Your task to perform on an android device: Search for the best deal on a 3d printer on aliexpress Image 0: 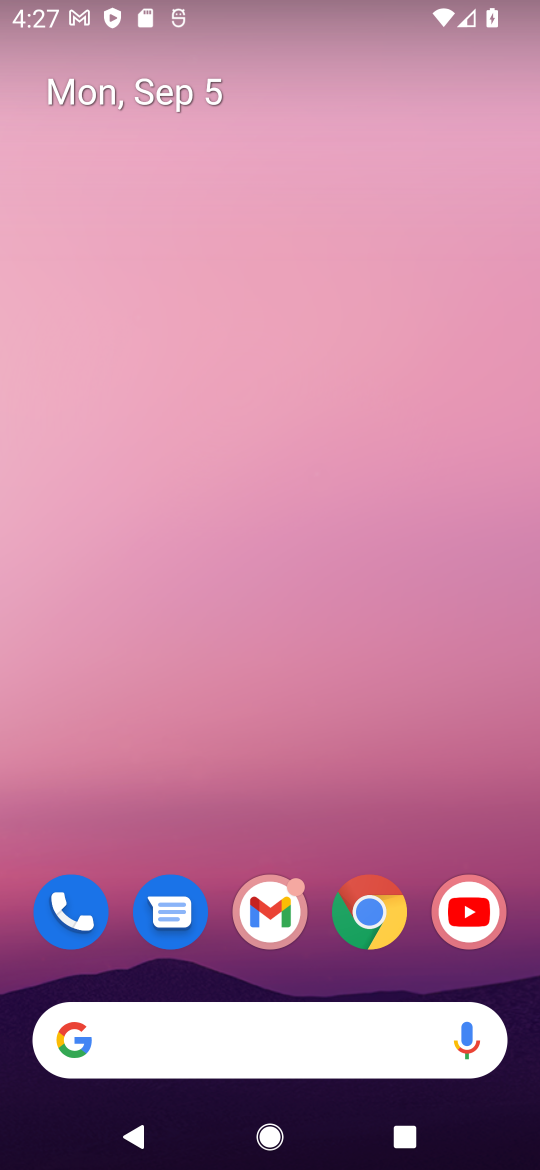
Step 0: click (381, 928)
Your task to perform on an android device: Search for the best deal on a 3d printer on aliexpress Image 1: 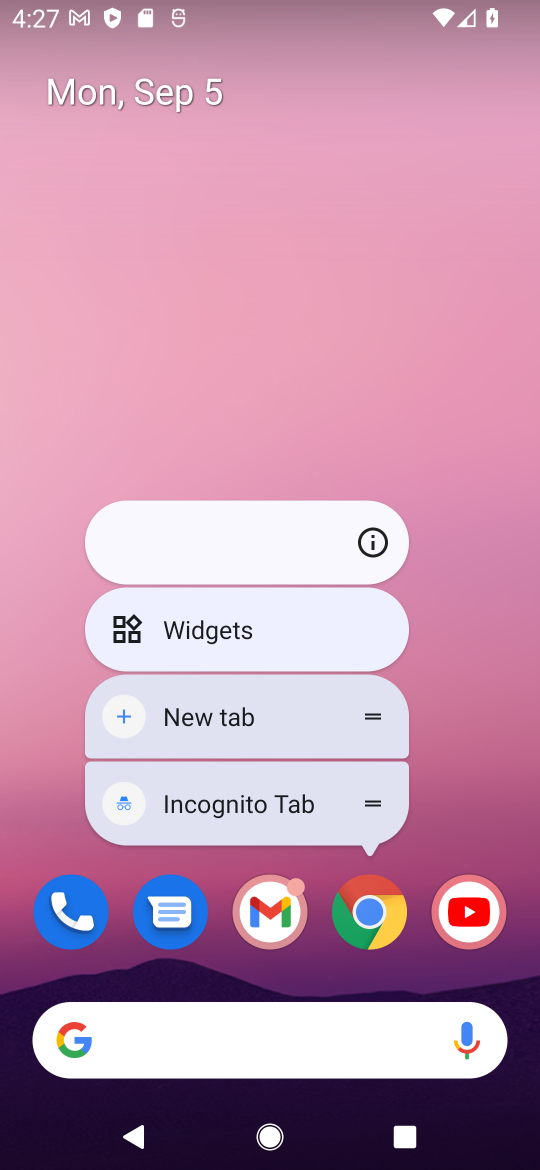
Step 1: click (382, 916)
Your task to perform on an android device: Search for the best deal on a 3d printer on aliexpress Image 2: 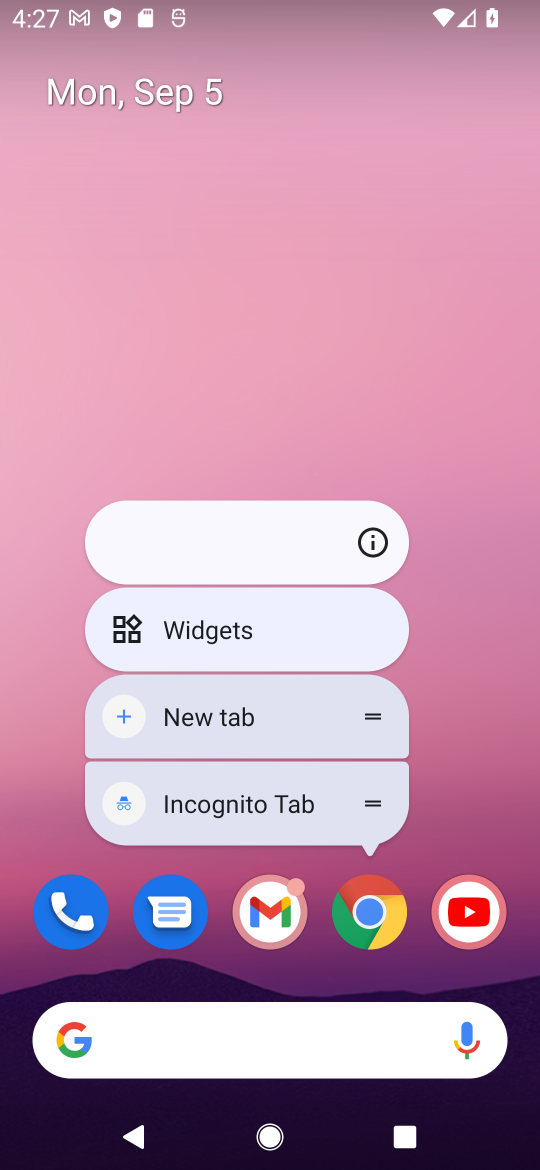
Step 2: click (358, 929)
Your task to perform on an android device: Search for the best deal on a 3d printer on aliexpress Image 3: 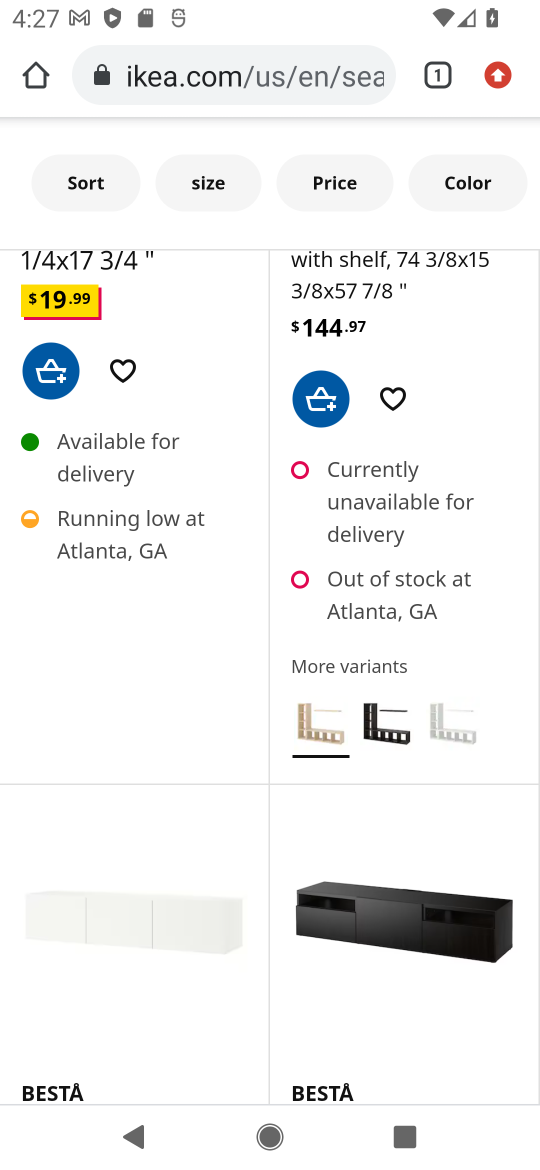
Step 3: click (215, 55)
Your task to perform on an android device: Search for the best deal on a 3d printer on aliexpress Image 4: 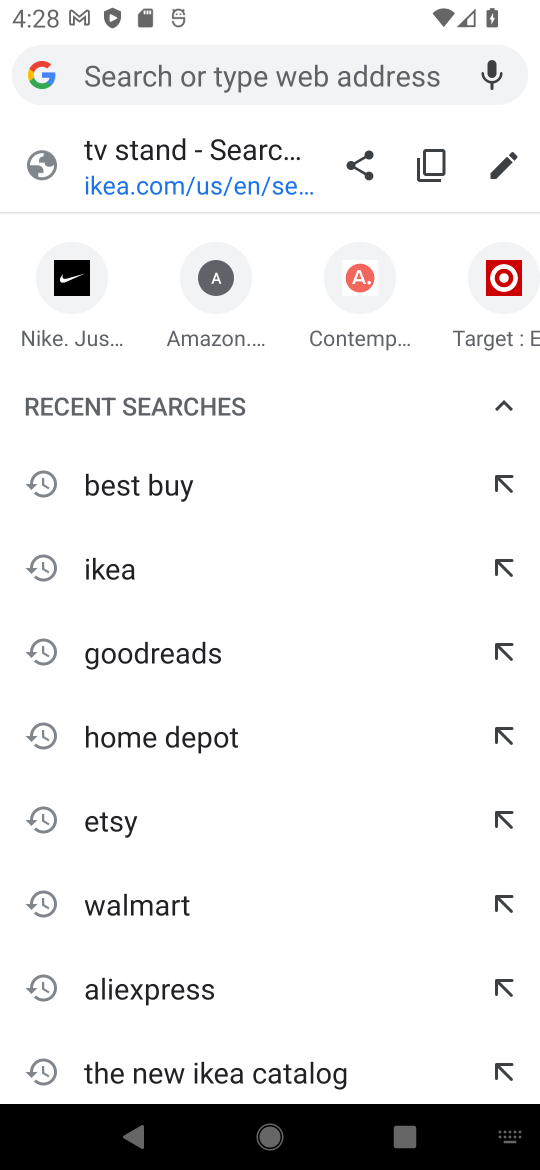
Step 4: type "aliexpress"
Your task to perform on an android device: Search for the best deal on a 3d printer on aliexpress Image 5: 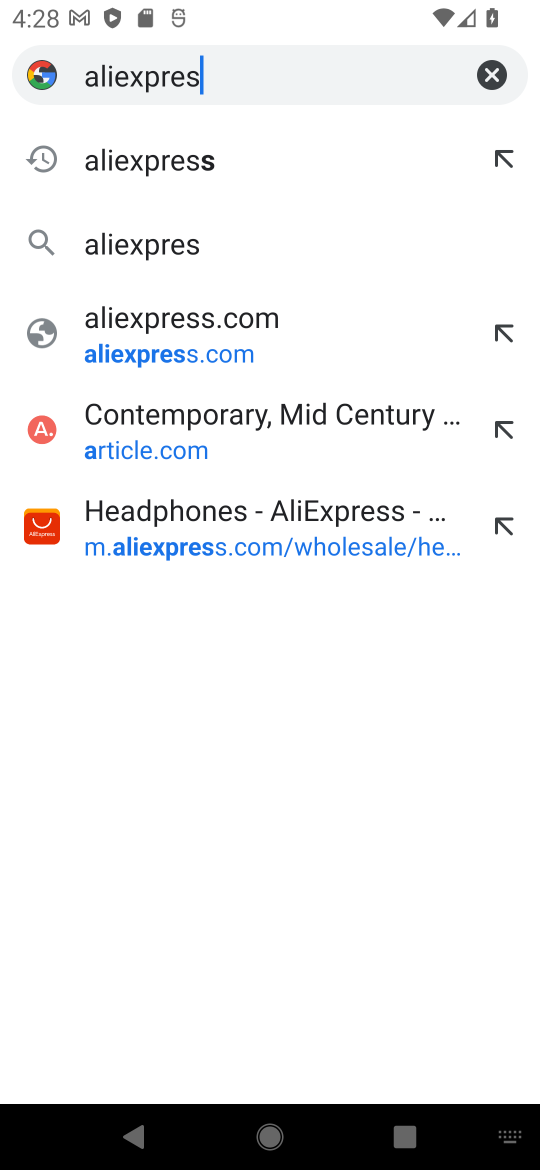
Step 5: type ""
Your task to perform on an android device: Search for the best deal on a 3d printer on aliexpress Image 6: 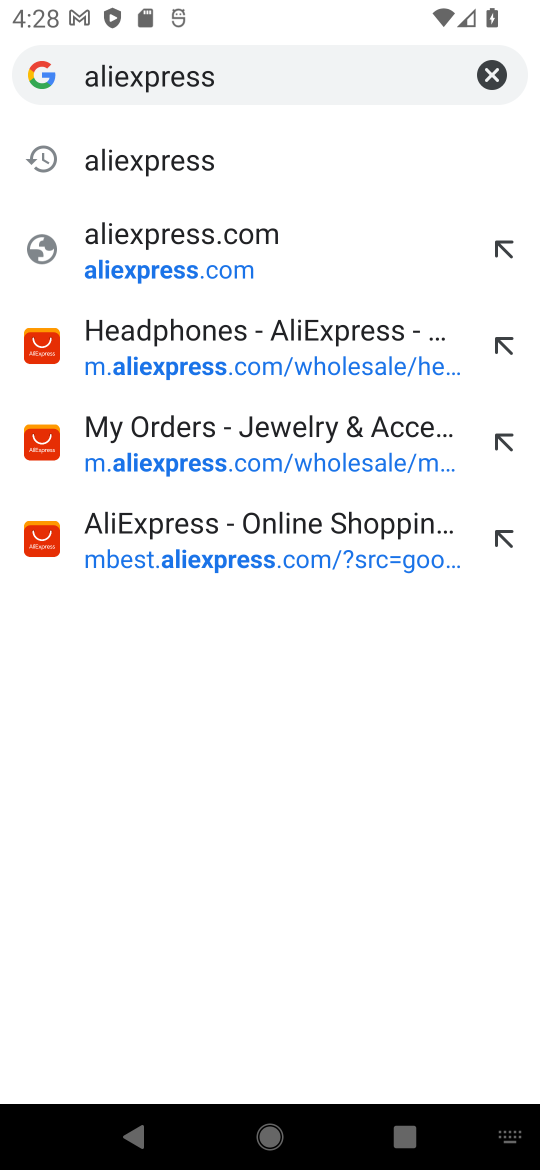
Step 6: press enter
Your task to perform on an android device: Search for the best deal on a 3d printer on aliexpress Image 7: 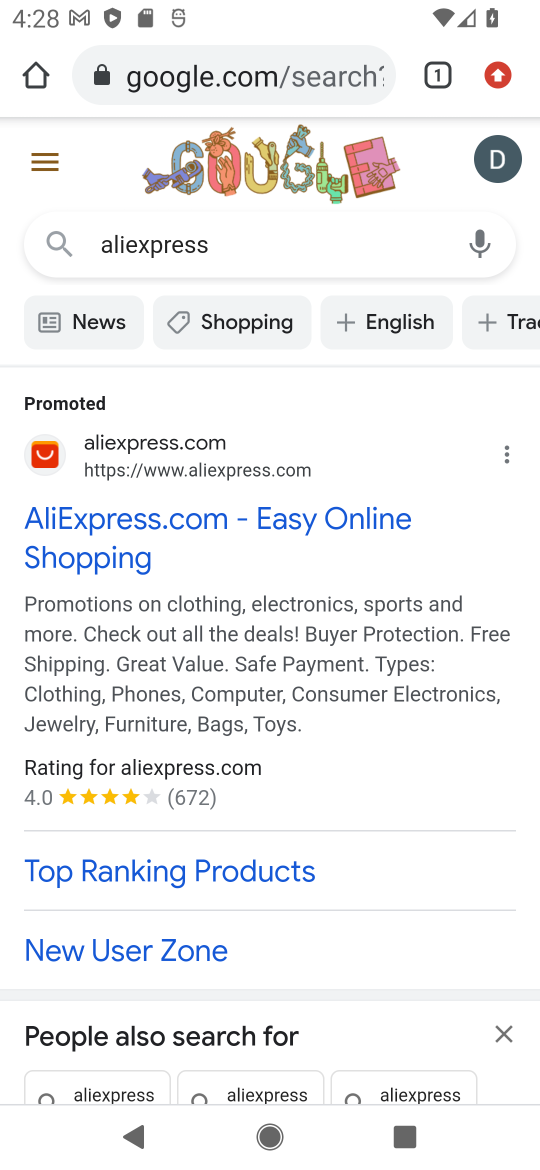
Step 7: click (243, 514)
Your task to perform on an android device: Search for the best deal on a 3d printer on aliexpress Image 8: 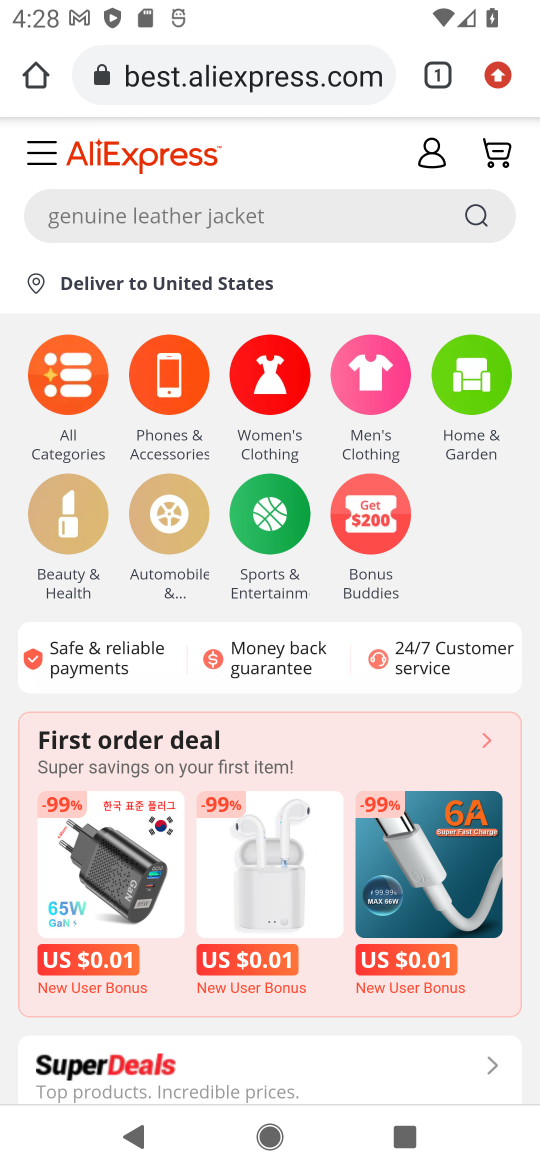
Step 8: click (240, 212)
Your task to perform on an android device: Search for the best deal on a 3d printer on aliexpress Image 9: 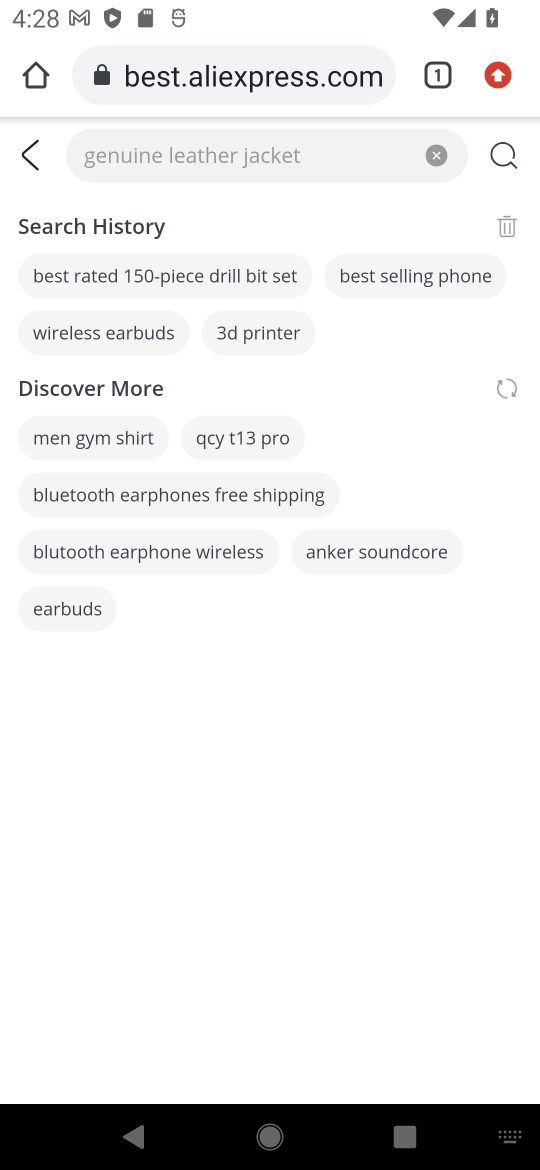
Step 9: click (38, 162)
Your task to perform on an android device: Search for the best deal on a 3d printer on aliexpress Image 10: 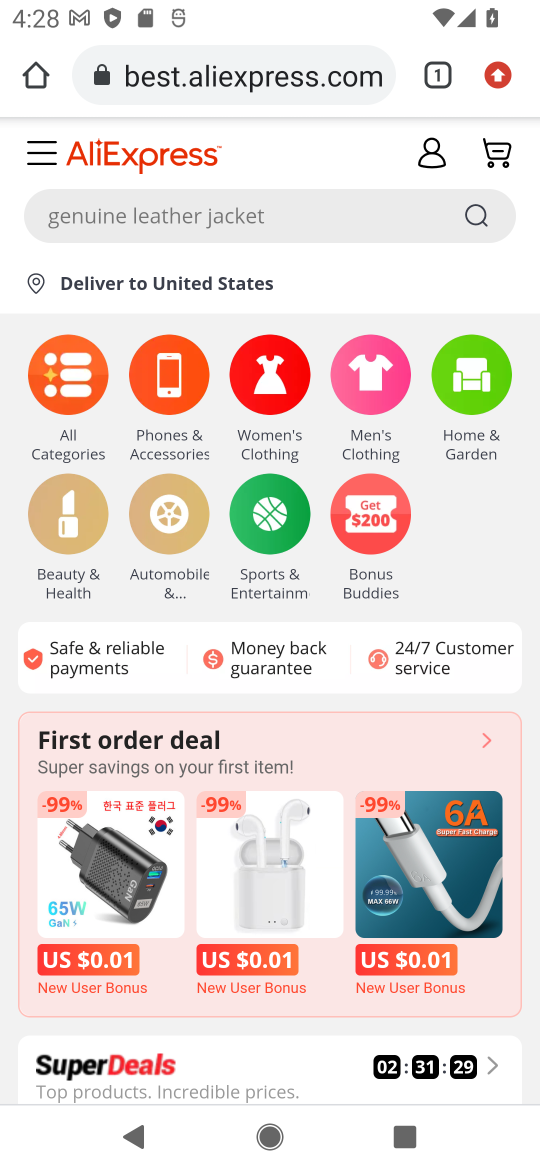
Step 10: click (249, 207)
Your task to perform on an android device: Search for the best deal on a 3d printer on aliexpress Image 11: 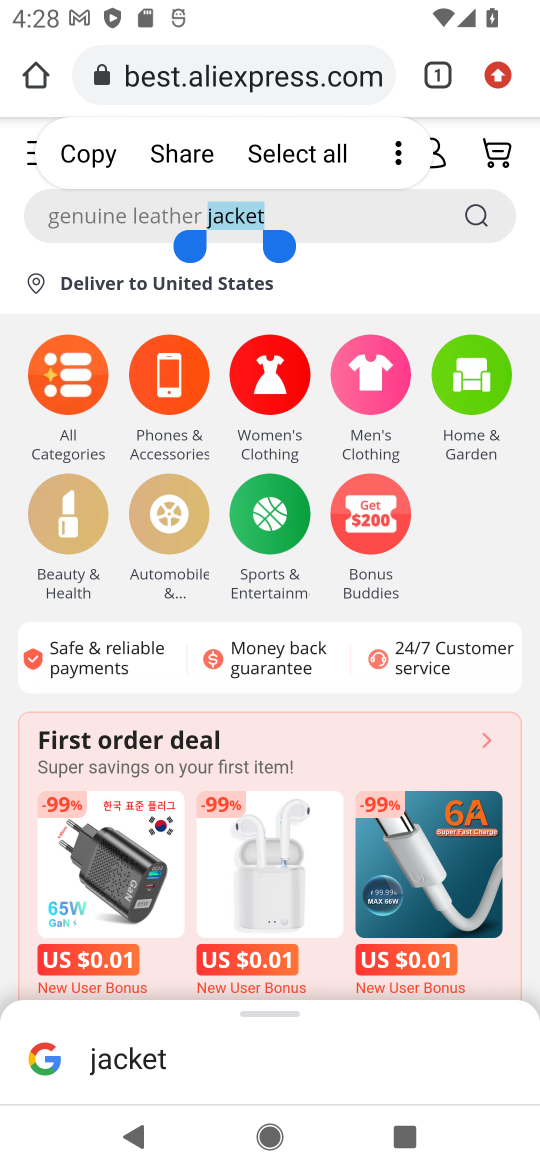
Step 11: click (321, 229)
Your task to perform on an android device: Search for the best deal on a 3d printer on aliexpress Image 12: 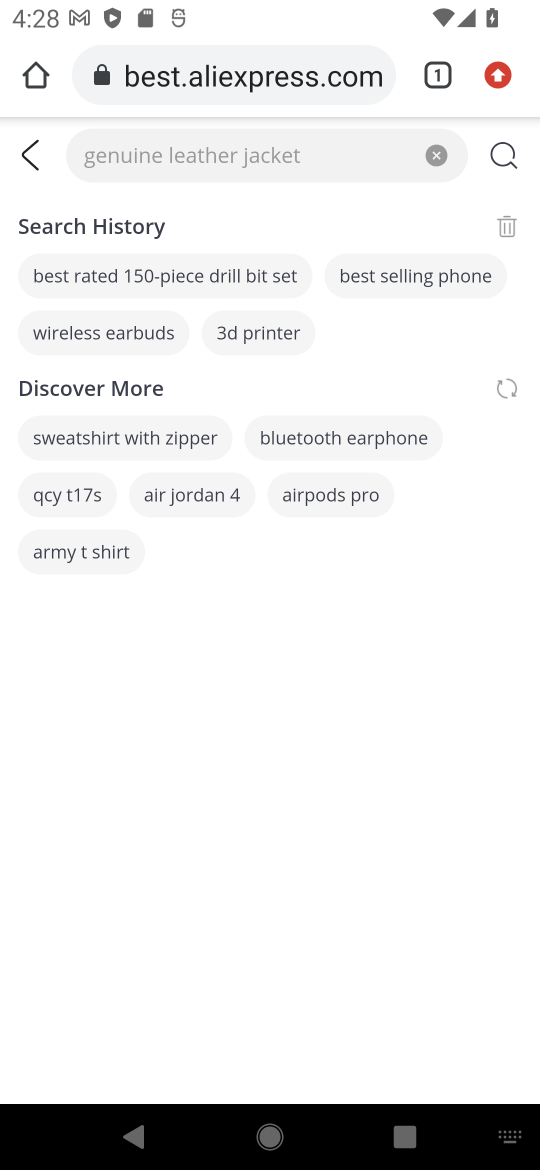
Step 12: type "best deal on 3d printer"
Your task to perform on an android device: Search for the best deal on a 3d printer on aliexpress Image 13: 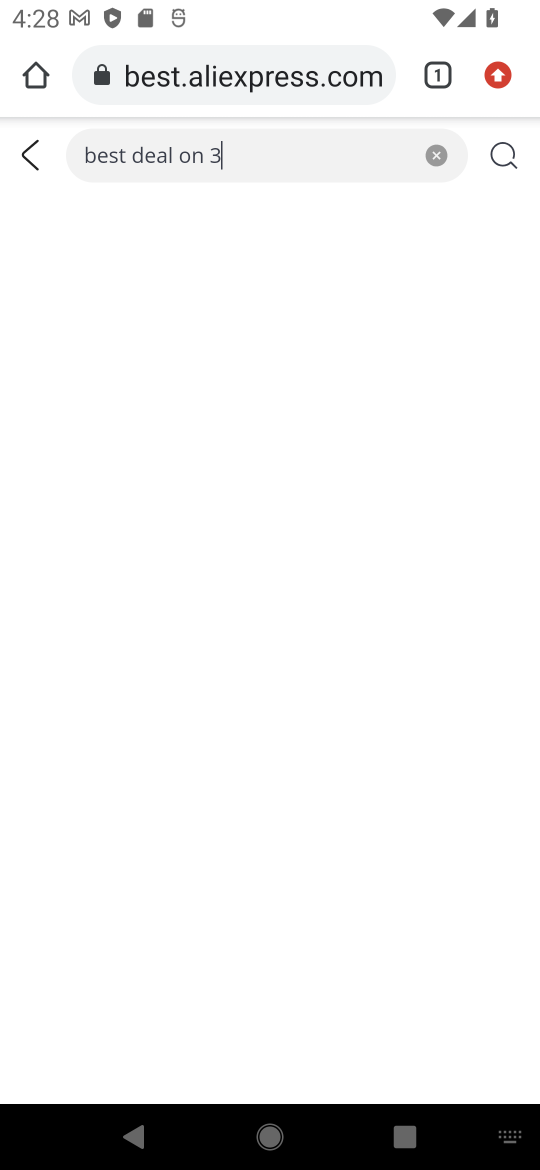
Step 13: press enter
Your task to perform on an android device: Search for the best deal on a 3d printer on aliexpress Image 14: 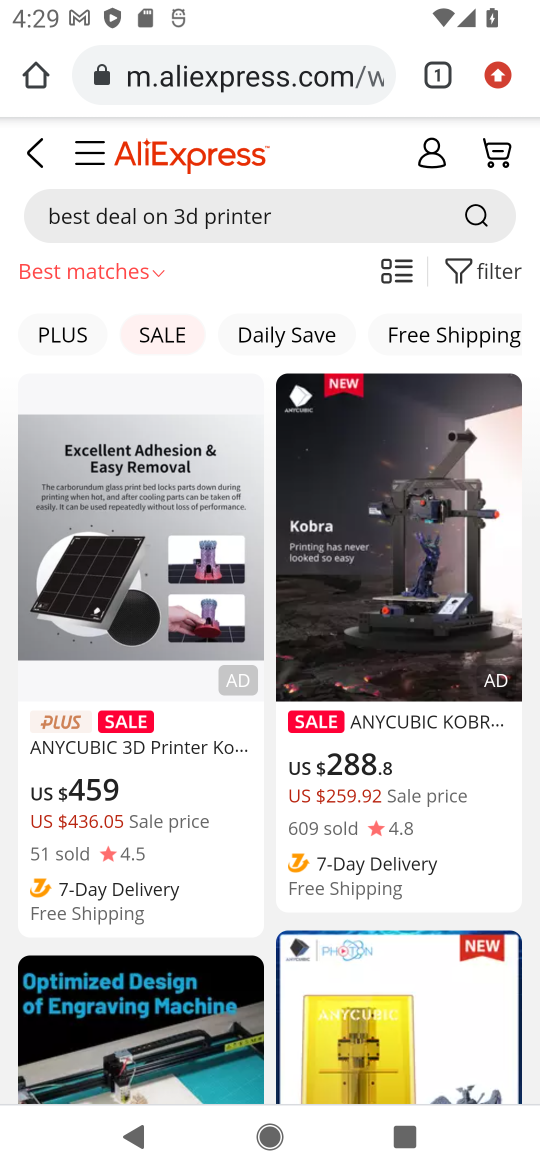
Step 14: click (457, 278)
Your task to perform on an android device: Search for the best deal on a 3d printer on aliexpress Image 15: 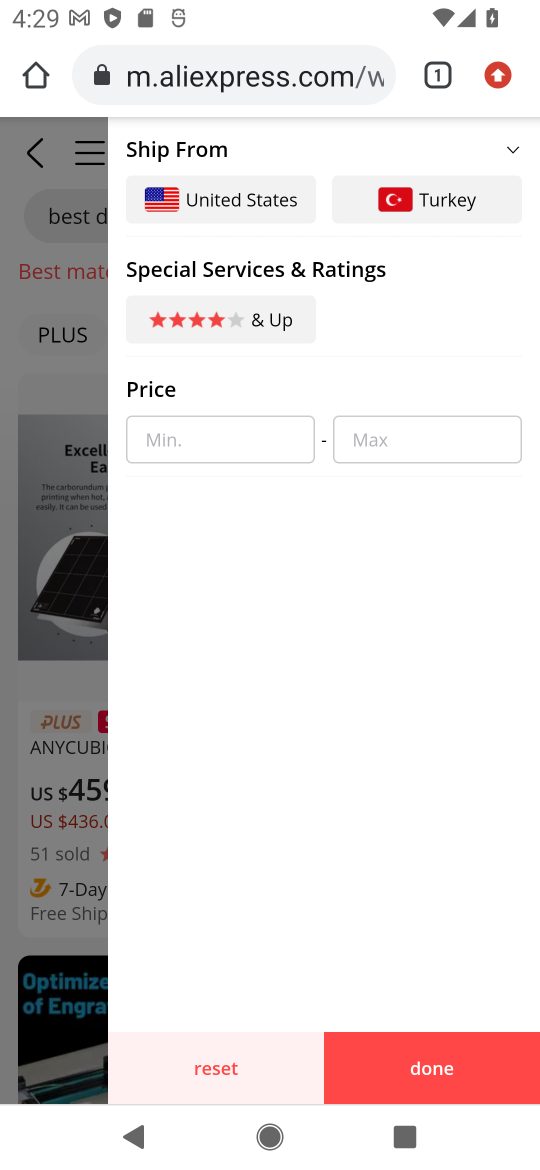
Step 15: click (50, 290)
Your task to perform on an android device: Search for the best deal on a 3d printer on aliexpress Image 16: 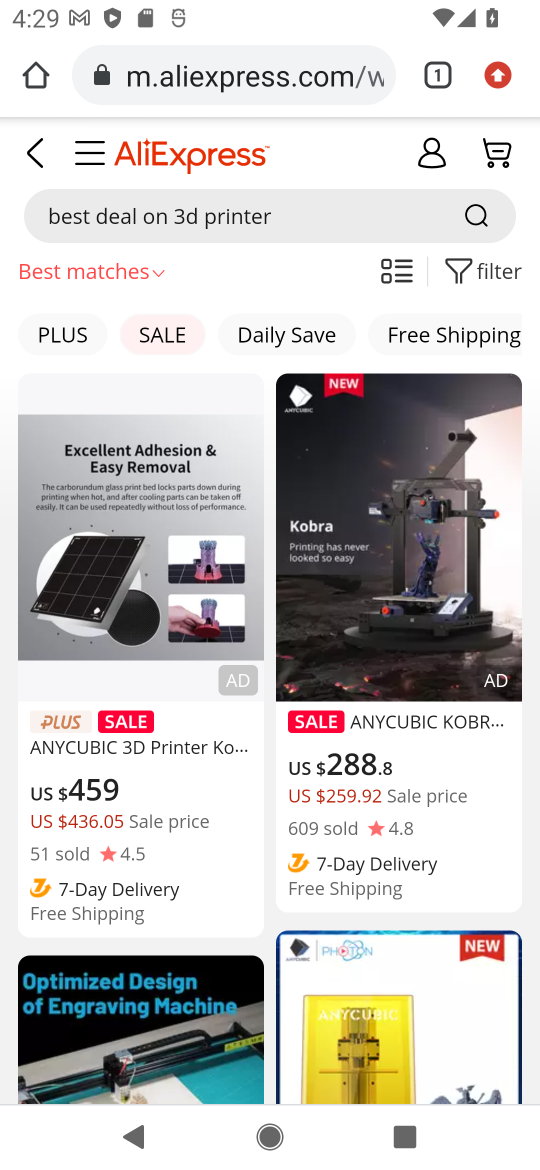
Step 16: task complete